Your task to perform on an android device: Go to Wikipedia Image 0: 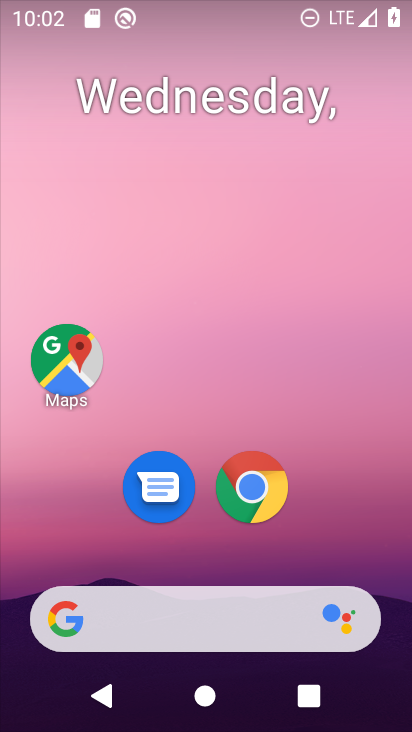
Step 0: click (255, 491)
Your task to perform on an android device: Go to Wikipedia Image 1: 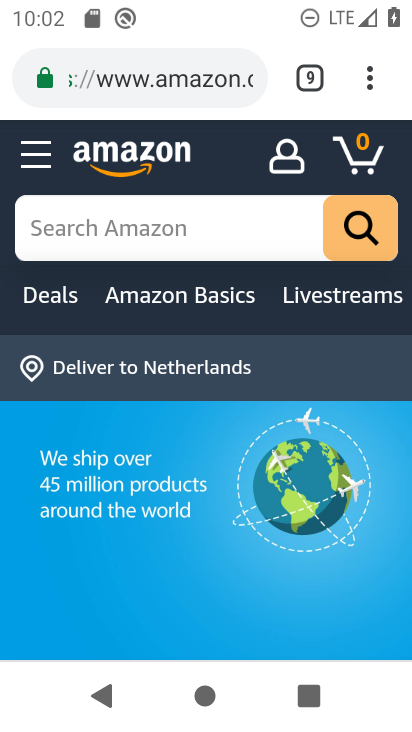
Step 1: click (365, 73)
Your task to perform on an android device: Go to Wikipedia Image 2: 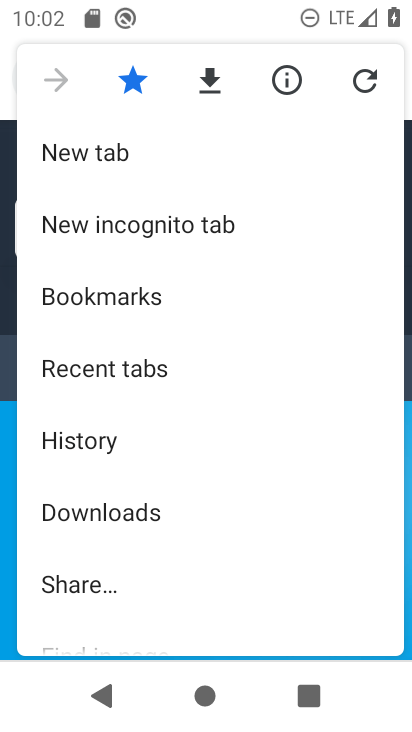
Step 2: click (107, 148)
Your task to perform on an android device: Go to Wikipedia Image 3: 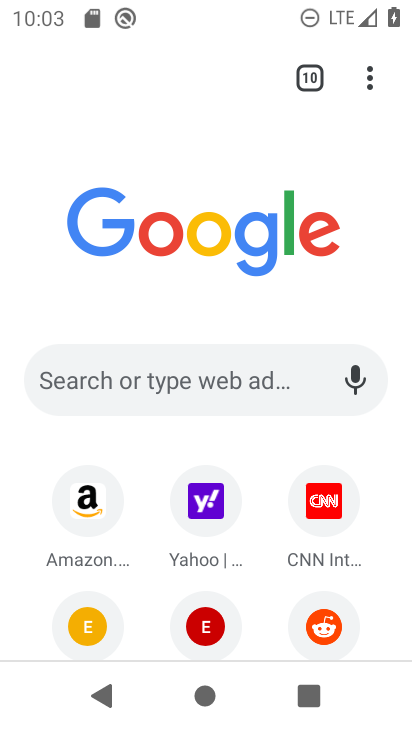
Step 3: drag from (146, 563) to (130, 305)
Your task to perform on an android device: Go to Wikipedia Image 4: 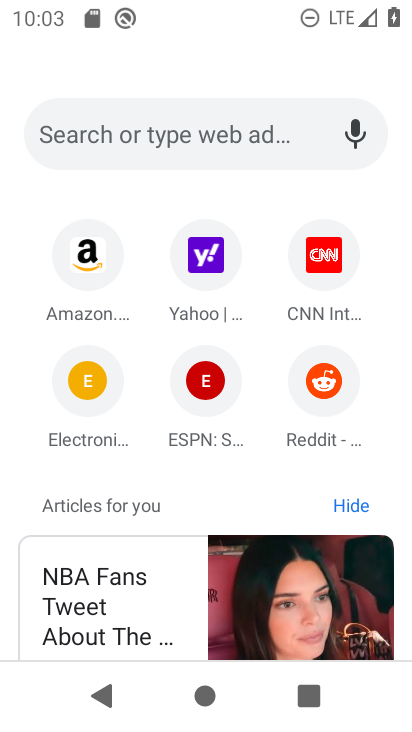
Step 4: click (137, 132)
Your task to perform on an android device: Go to Wikipedia Image 5: 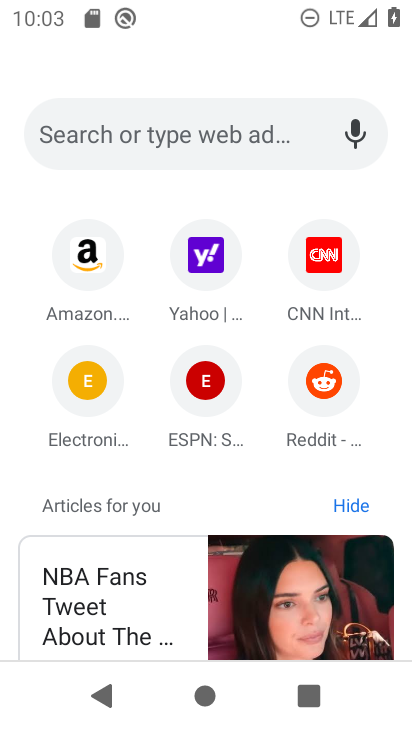
Step 5: click (104, 118)
Your task to perform on an android device: Go to Wikipedia Image 6: 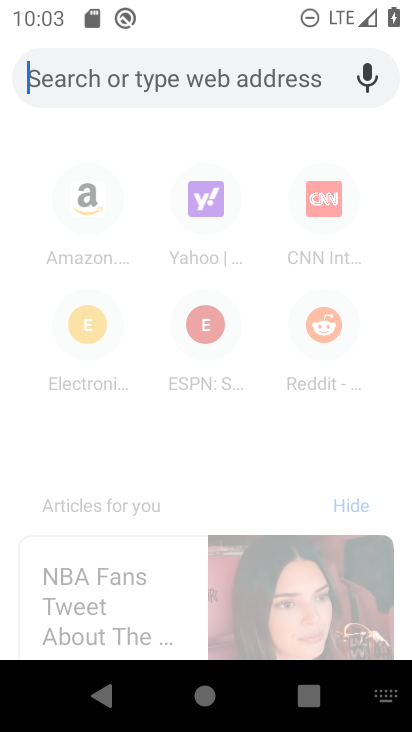
Step 6: type "wikipedia"
Your task to perform on an android device: Go to Wikipedia Image 7: 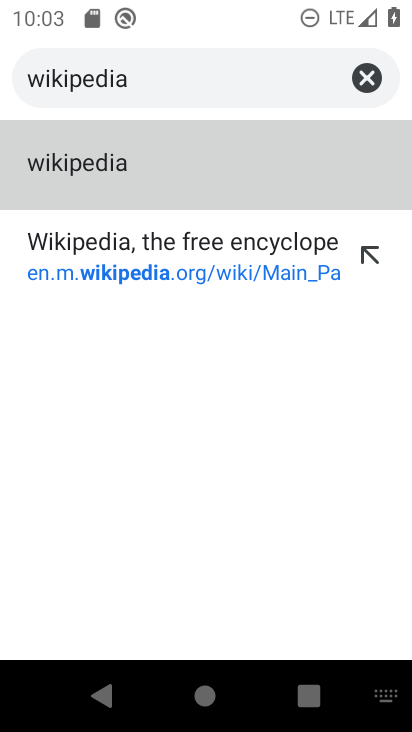
Step 7: click (116, 160)
Your task to perform on an android device: Go to Wikipedia Image 8: 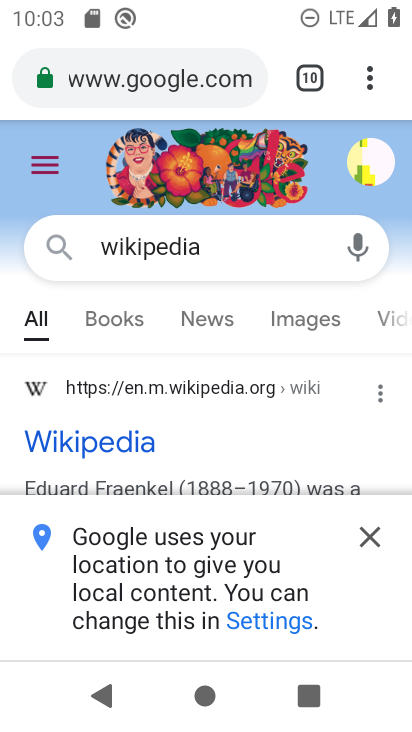
Step 8: click (374, 532)
Your task to perform on an android device: Go to Wikipedia Image 9: 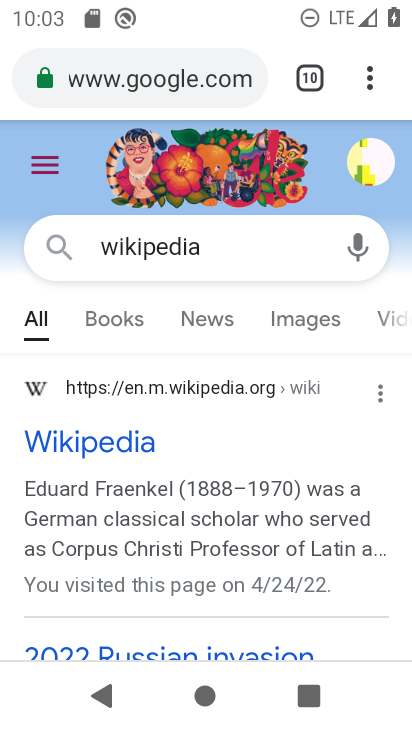
Step 9: task complete